Your task to perform on an android device: What's on my calendar today? Image 0: 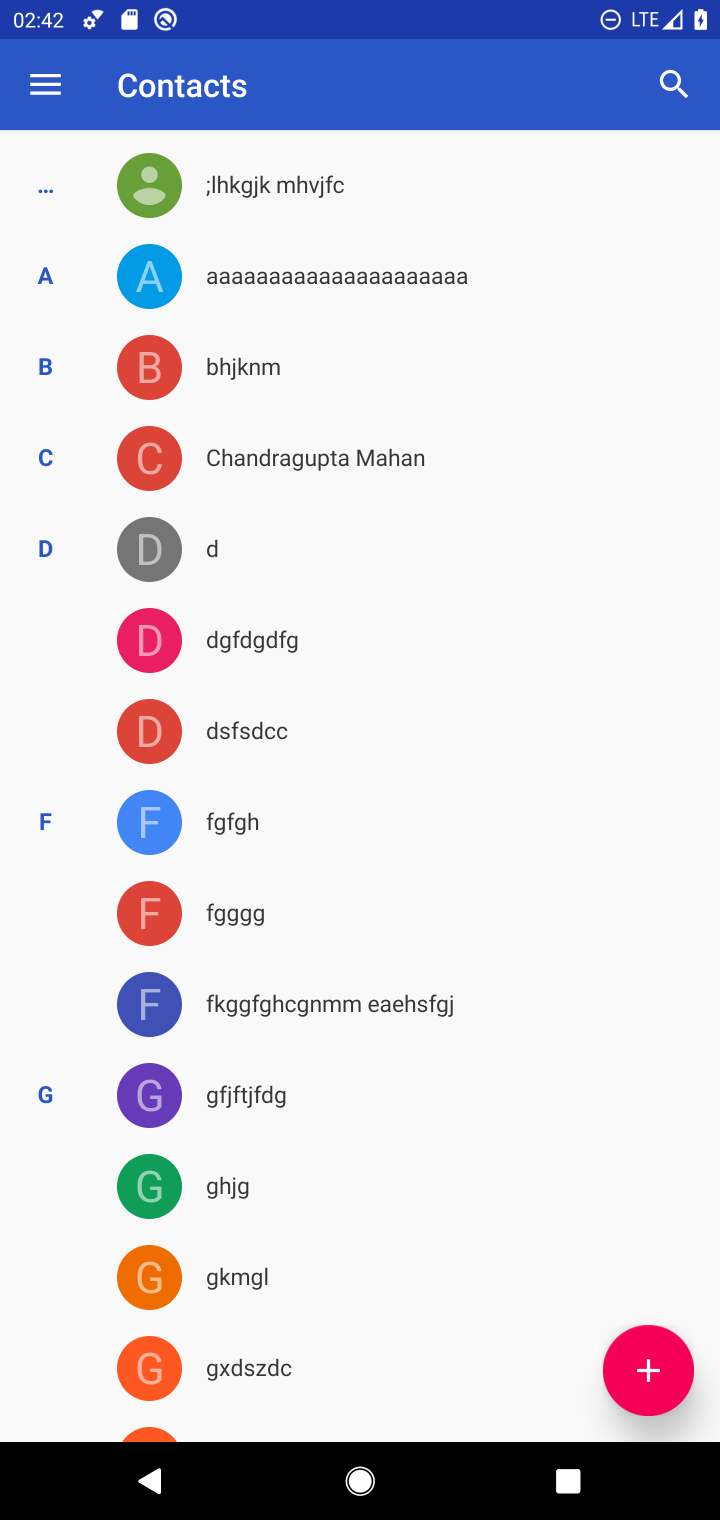
Step 0: press home button
Your task to perform on an android device: What's on my calendar today? Image 1: 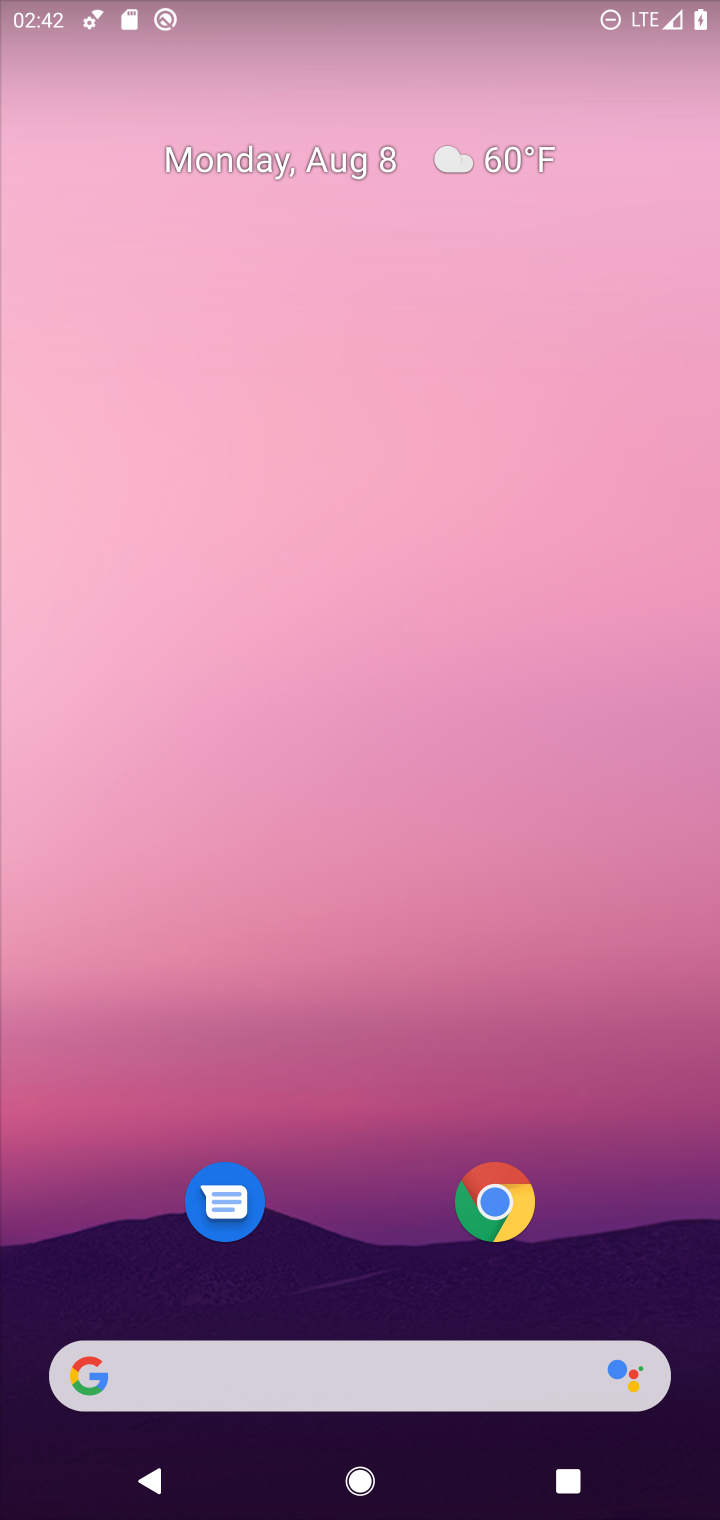
Step 1: drag from (347, 1247) to (376, 178)
Your task to perform on an android device: What's on my calendar today? Image 2: 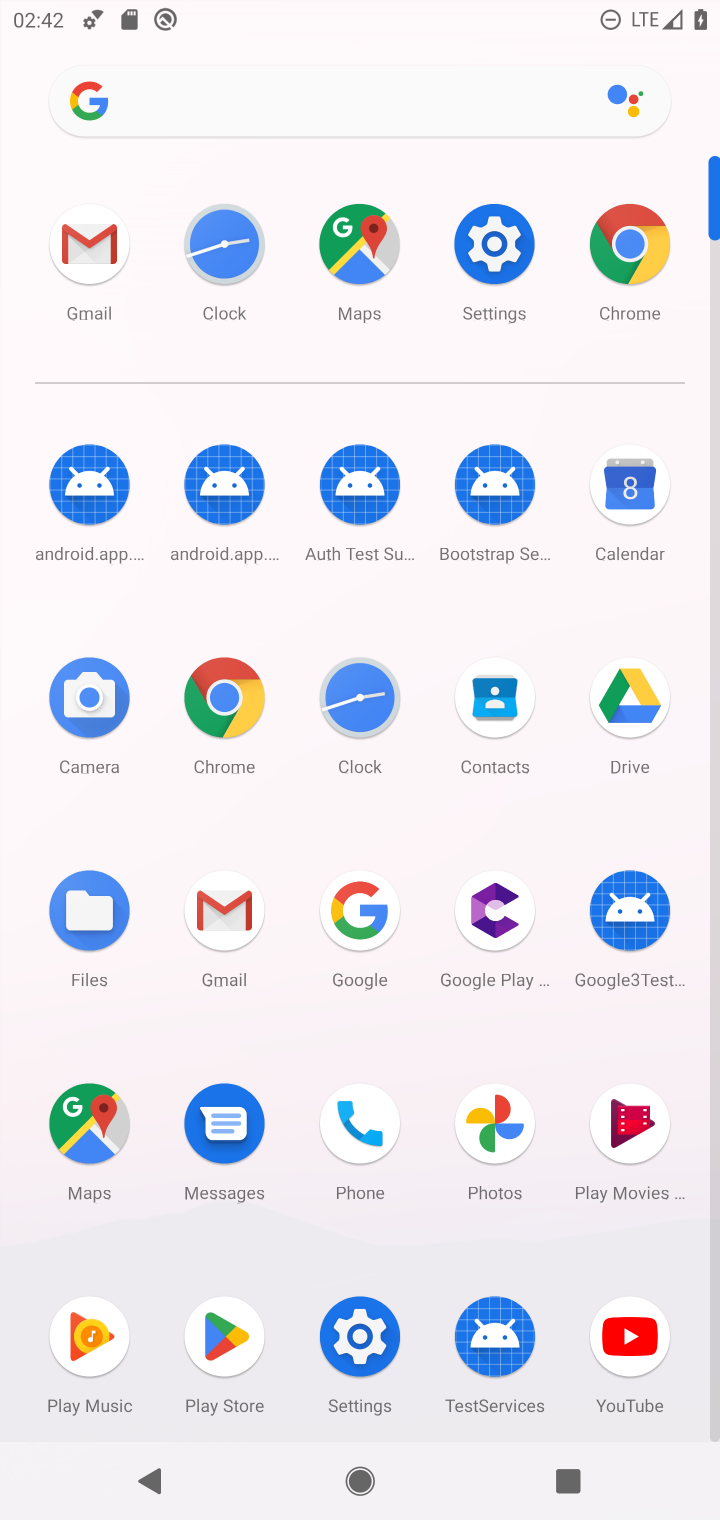
Step 2: click (630, 483)
Your task to perform on an android device: What's on my calendar today? Image 3: 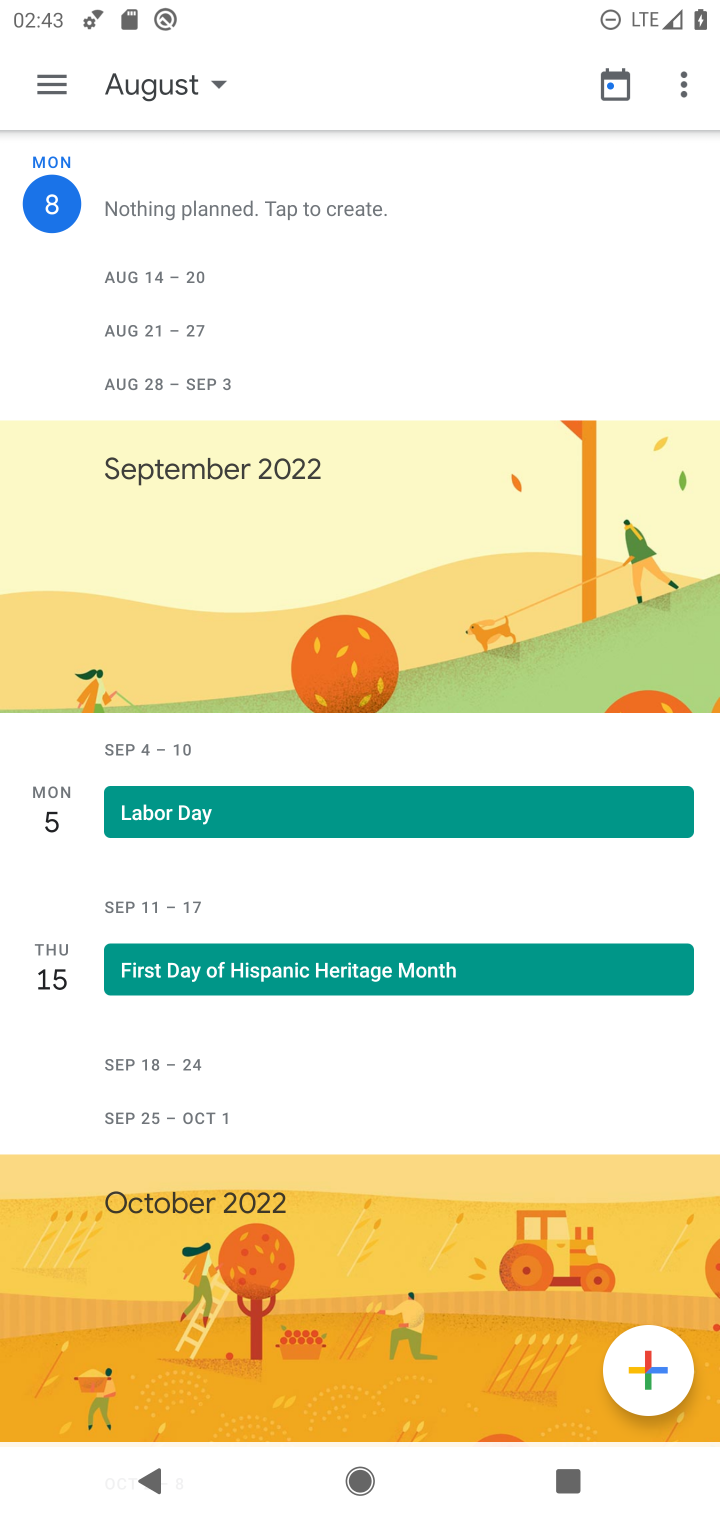
Step 3: task complete